Your task to perform on an android device: turn on notifications settings in the gmail app Image 0: 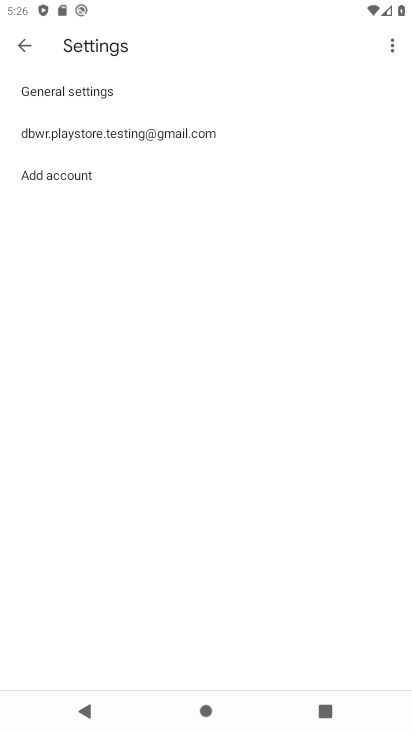
Step 0: press home button
Your task to perform on an android device: turn on notifications settings in the gmail app Image 1: 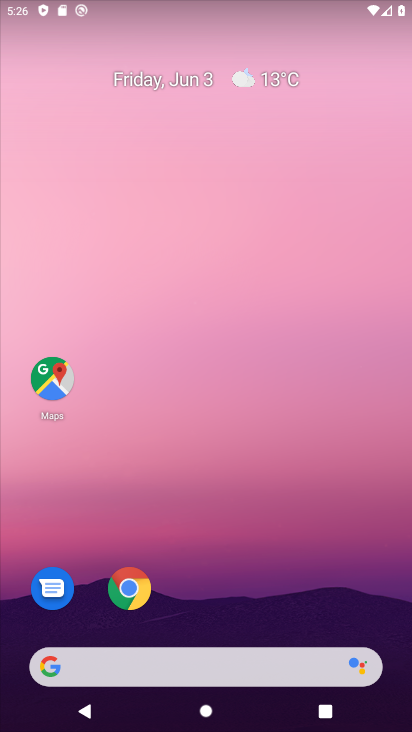
Step 1: drag from (229, 579) to (219, 148)
Your task to perform on an android device: turn on notifications settings in the gmail app Image 2: 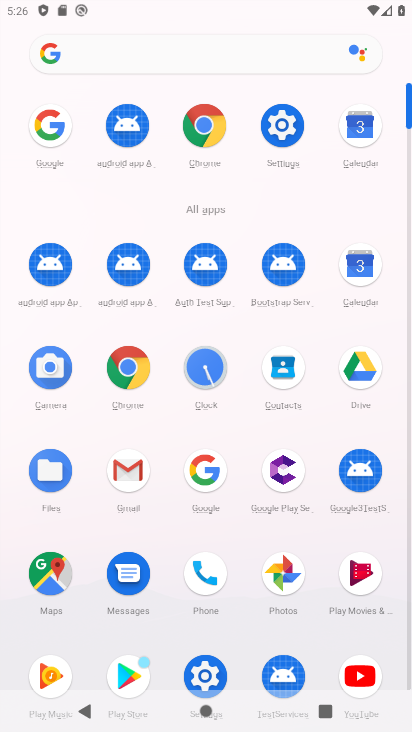
Step 2: click (128, 487)
Your task to perform on an android device: turn on notifications settings in the gmail app Image 3: 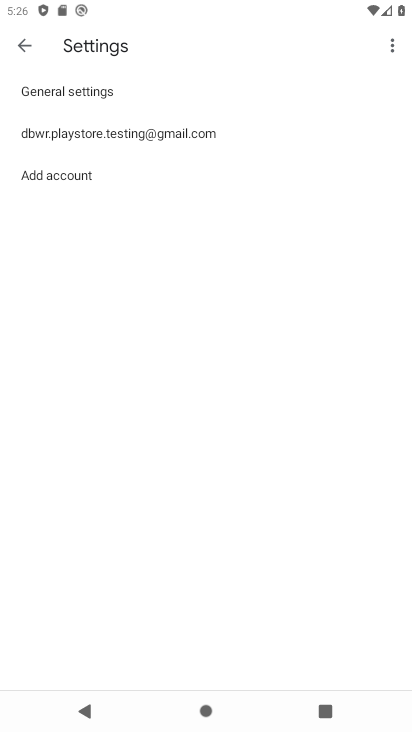
Step 3: click (106, 97)
Your task to perform on an android device: turn on notifications settings in the gmail app Image 4: 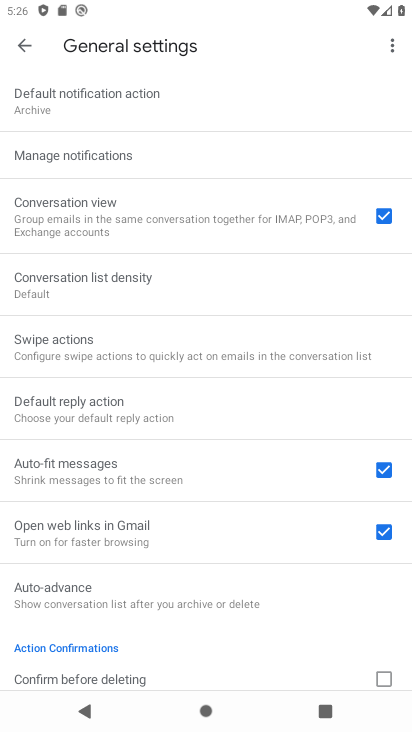
Step 4: click (105, 158)
Your task to perform on an android device: turn on notifications settings in the gmail app Image 5: 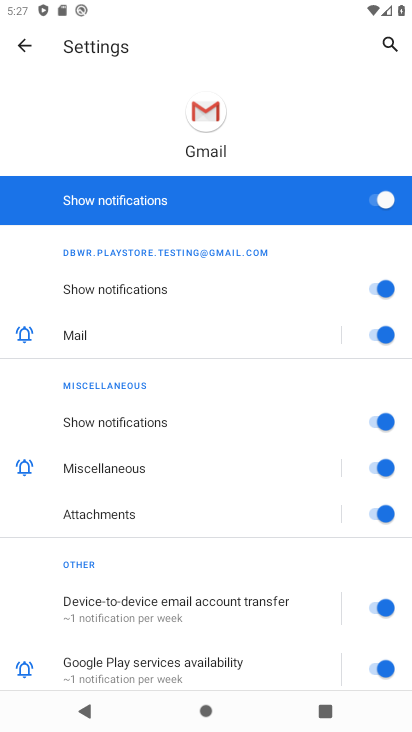
Step 5: task complete